Your task to perform on an android device: allow cookies in the chrome app Image 0: 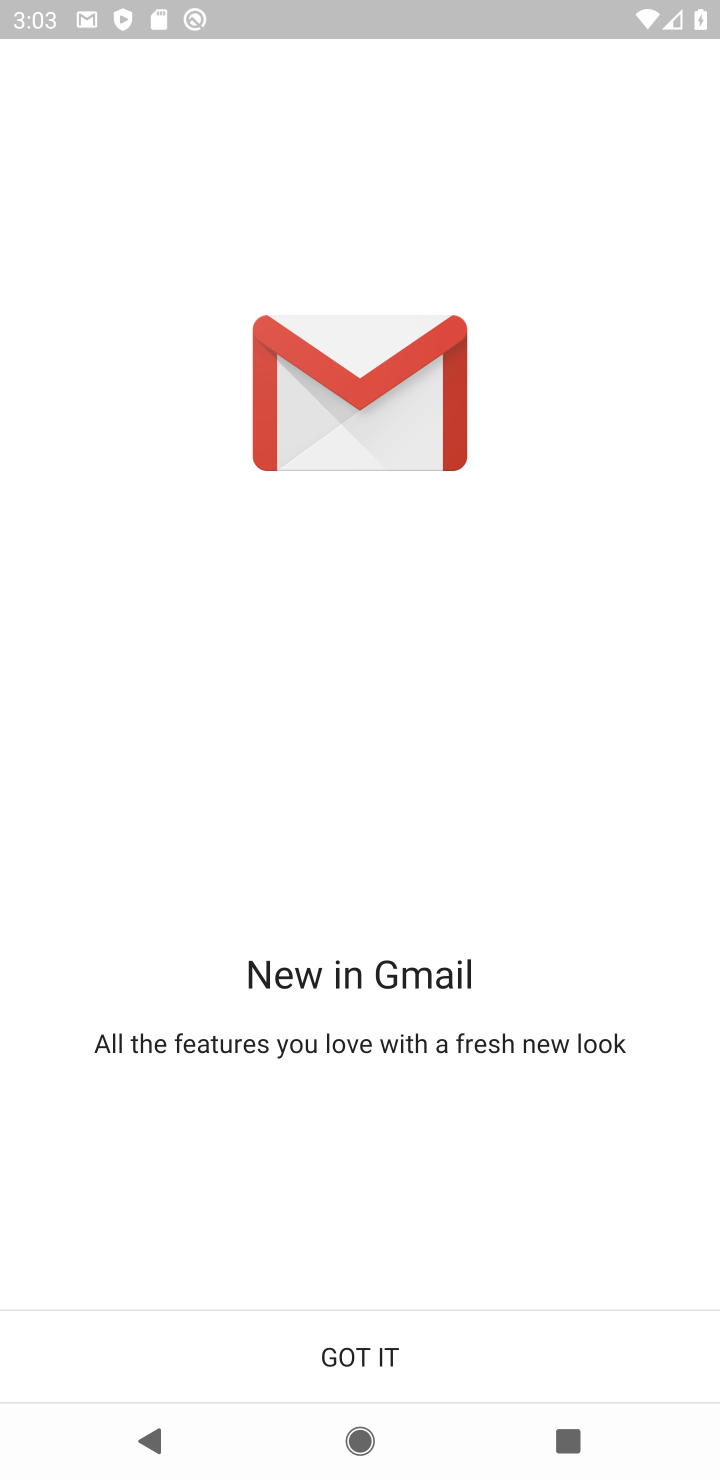
Step 0: press back button
Your task to perform on an android device: allow cookies in the chrome app Image 1: 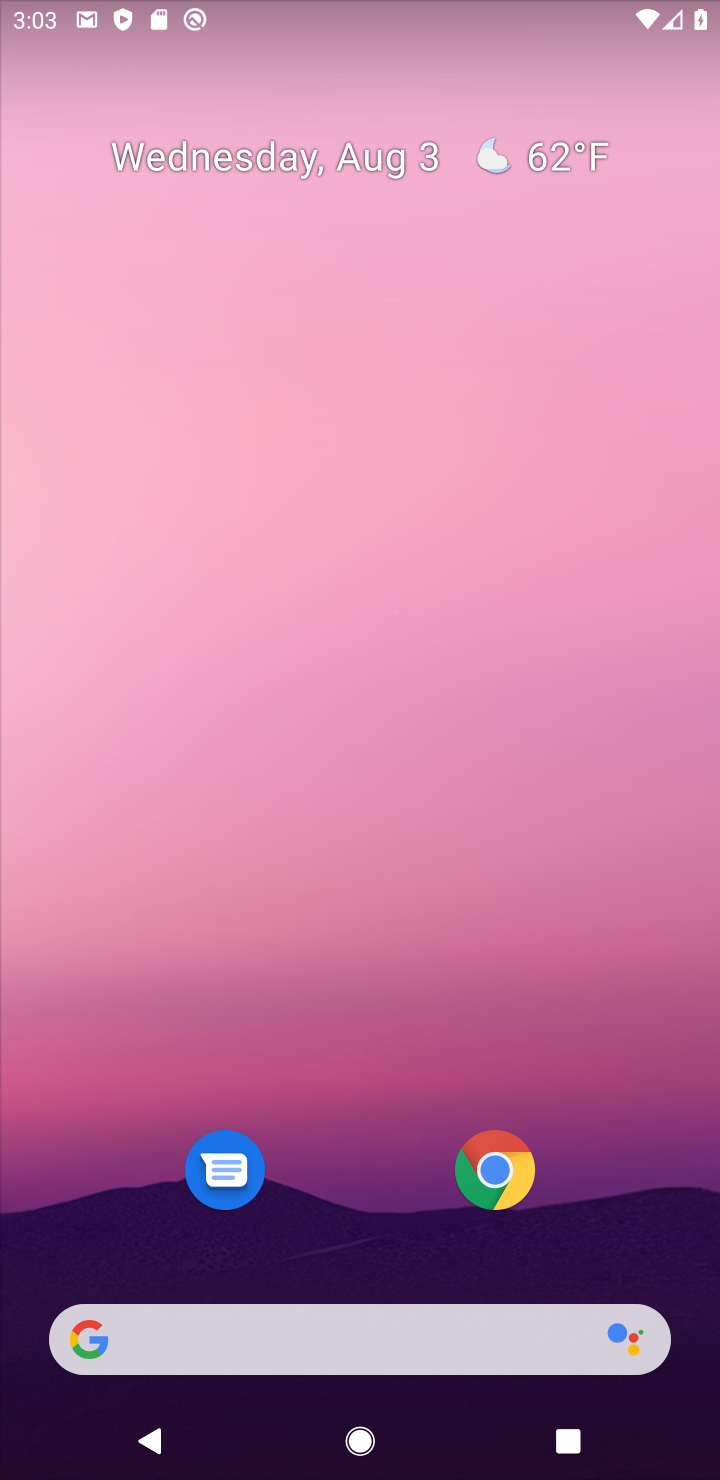
Step 1: click (481, 1197)
Your task to perform on an android device: allow cookies in the chrome app Image 2: 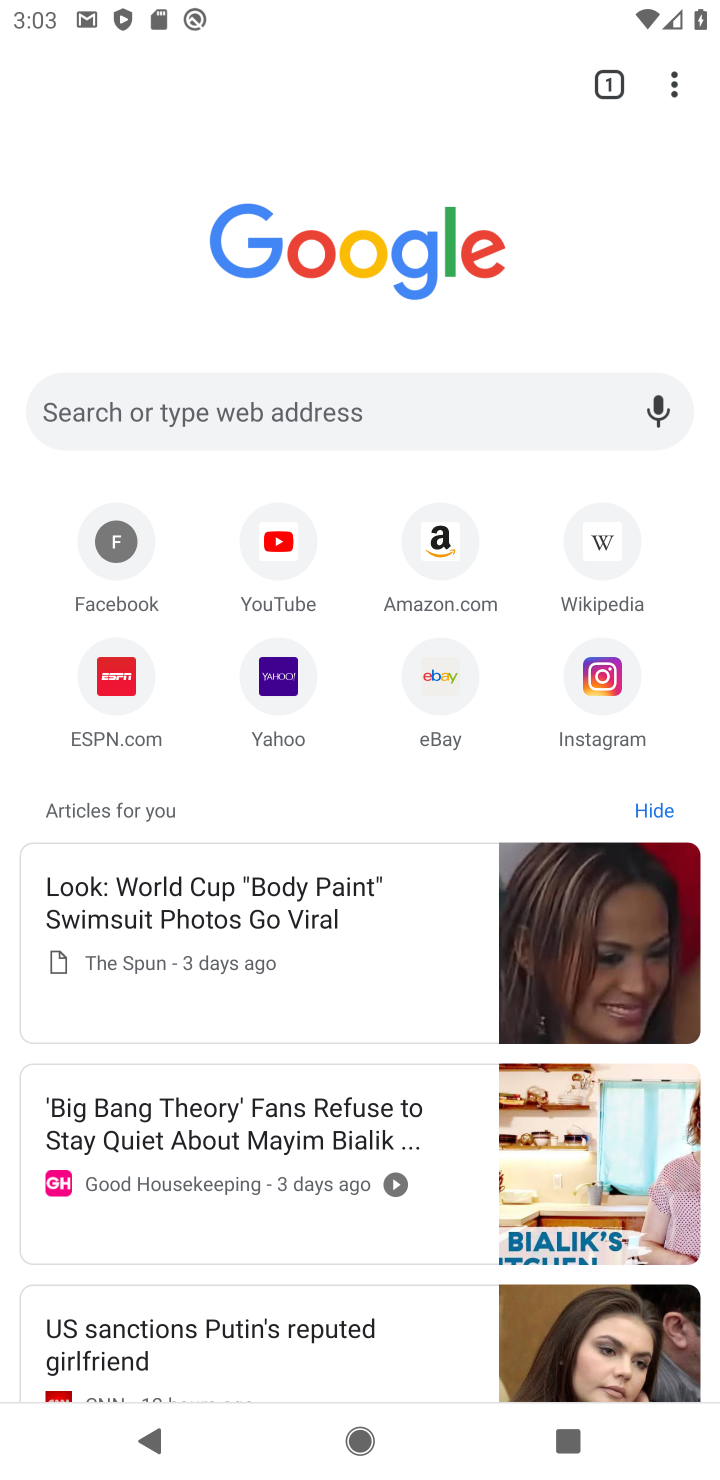
Step 2: click (680, 79)
Your task to perform on an android device: allow cookies in the chrome app Image 3: 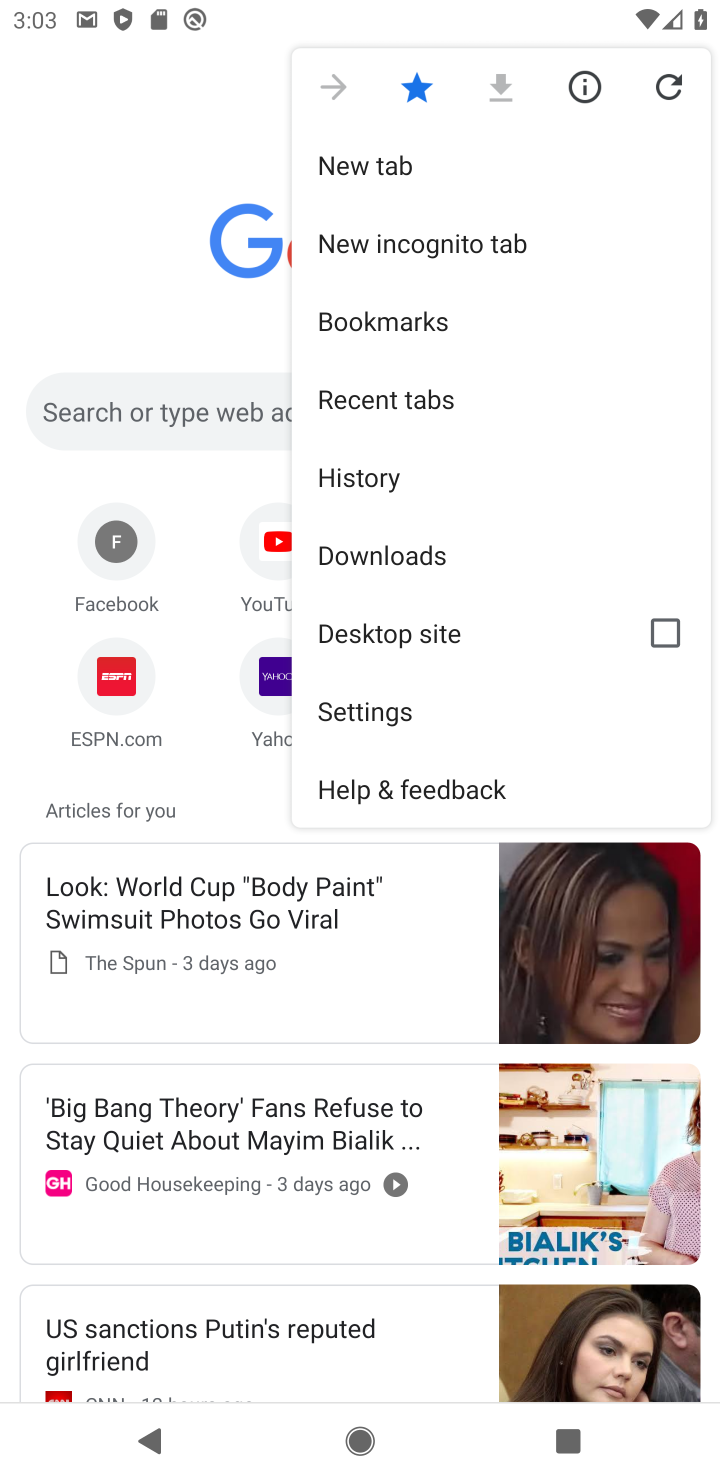
Step 3: click (371, 714)
Your task to perform on an android device: allow cookies in the chrome app Image 4: 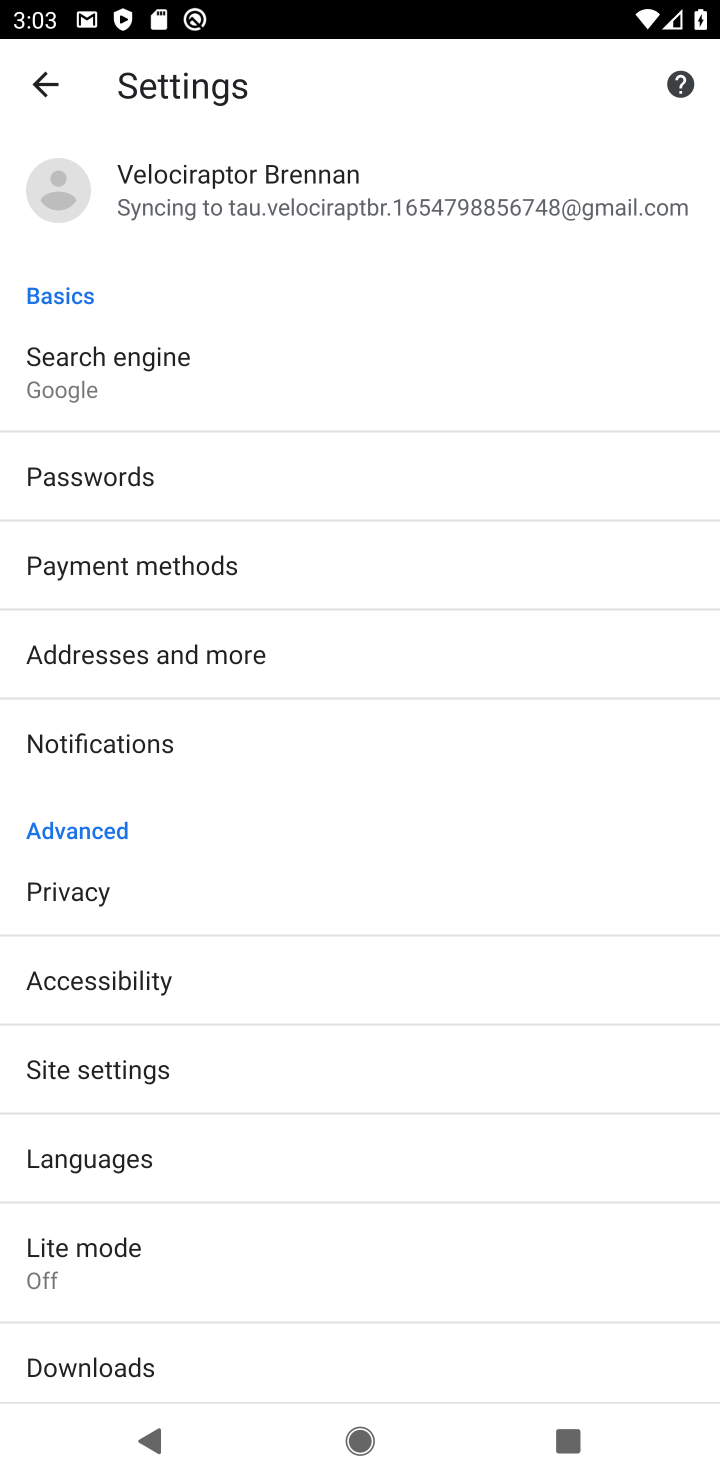
Step 4: click (117, 1062)
Your task to perform on an android device: allow cookies in the chrome app Image 5: 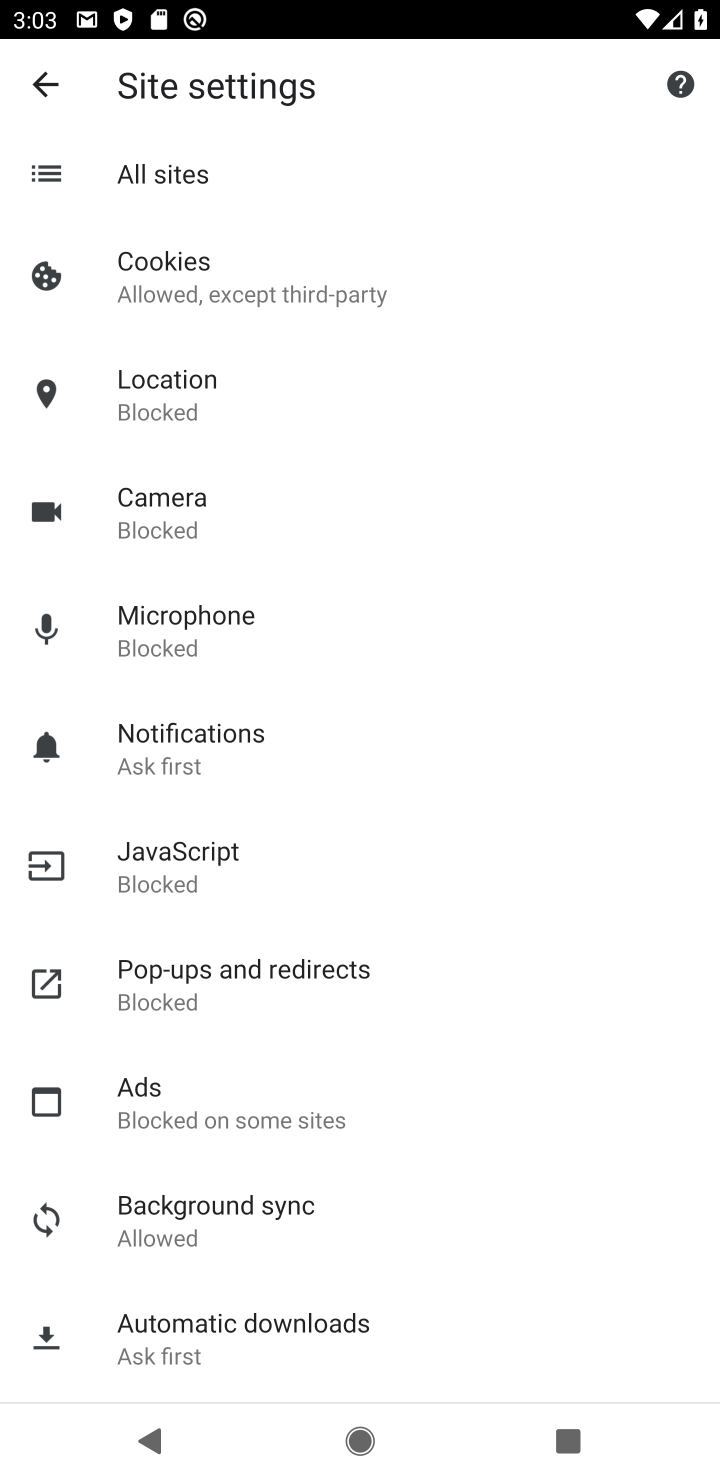
Step 5: click (287, 293)
Your task to perform on an android device: allow cookies in the chrome app Image 6: 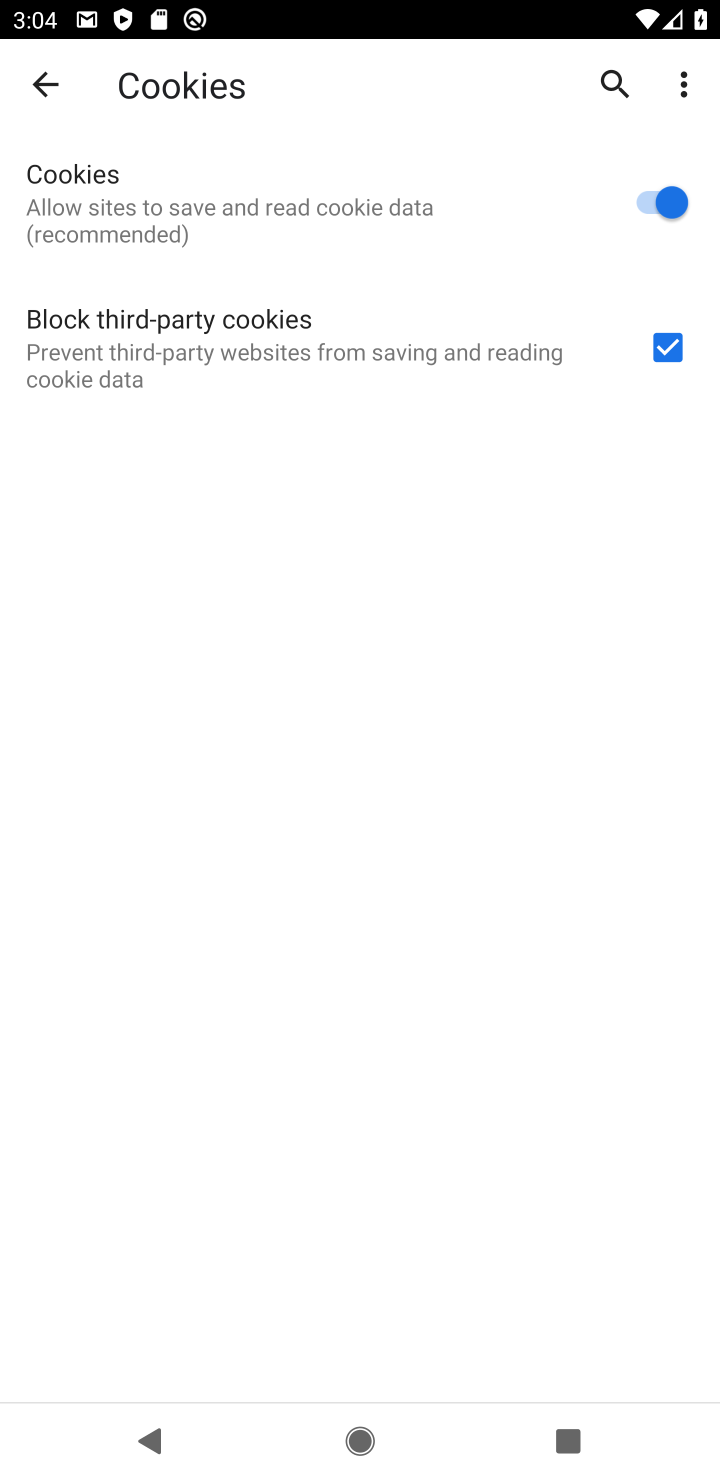
Step 6: task complete